Your task to perform on an android device: Open sound settings Image 0: 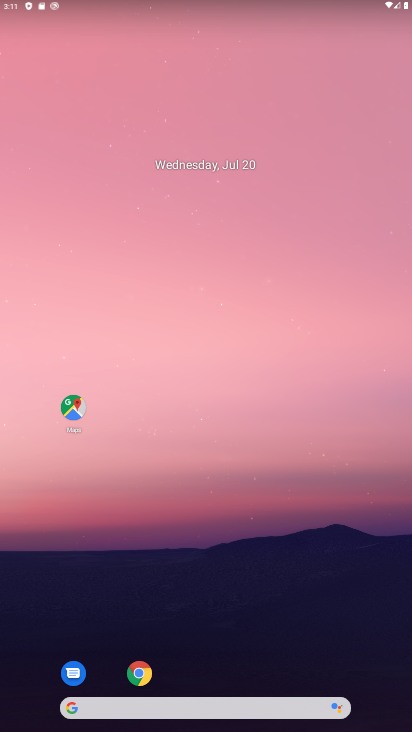
Step 0: drag from (209, 644) to (229, 286)
Your task to perform on an android device: Open sound settings Image 1: 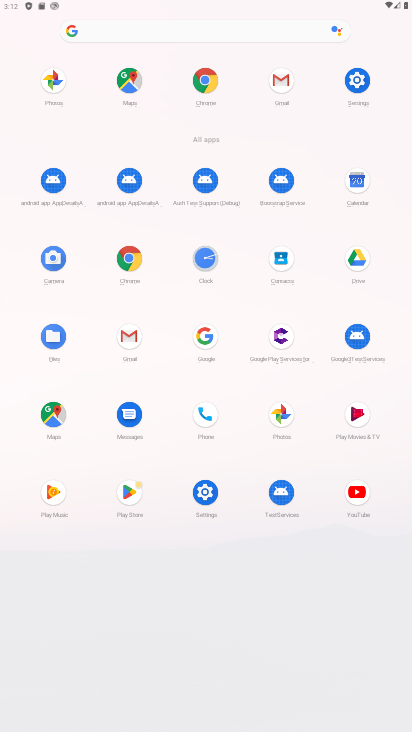
Step 1: click (364, 75)
Your task to perform on an android device: Open sound settings Image 2: 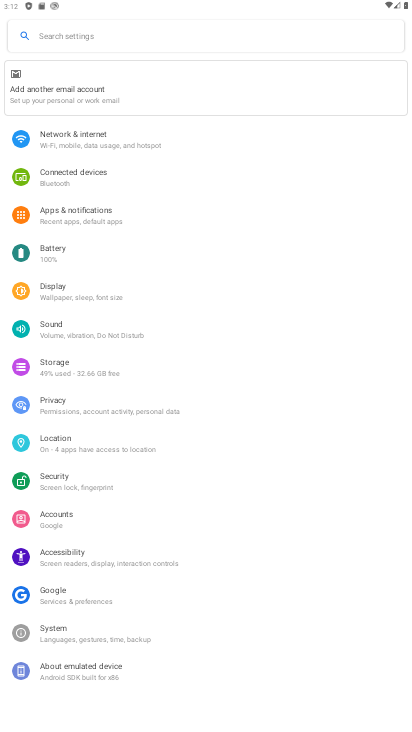
Step 2: click (85, 332)
Your task to perform on an android device: Open sound settings Image 3: 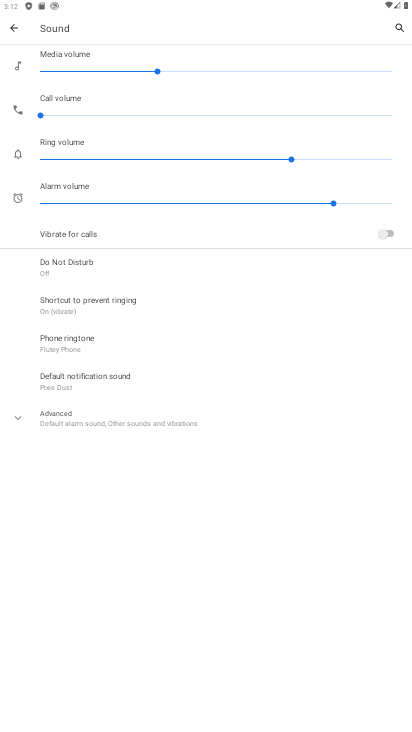
Step 3: task complete